Your task to perform on an android device: remove spam from my inbox in the gmail app Image 0: 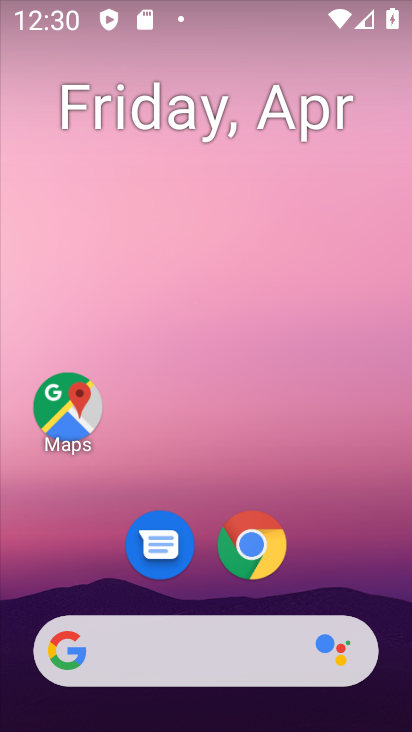
Step 0: drag from (346, 541) to (308, 148)
Your task to perform on an android device: remove spam from my inbox in the gmail app Image 1: 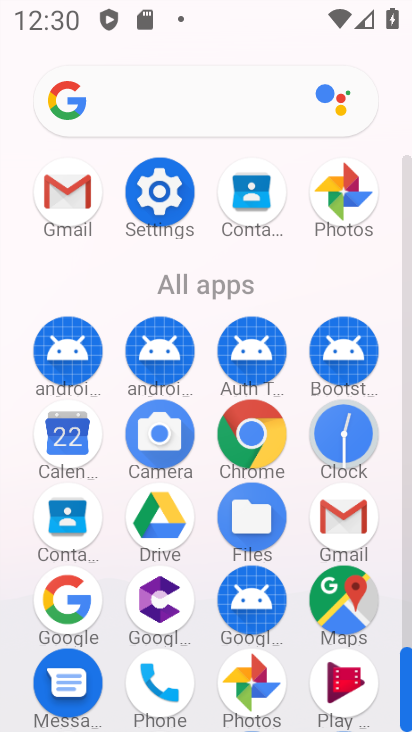
Step 1: click (346, 518)
Your task to perform on an android device: remove spam from my inbox in the gmail app Image 2: 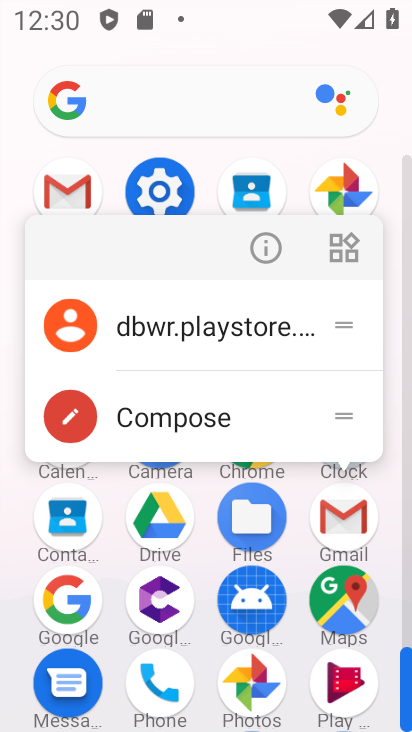
Step 2: click (345, 510)
Your task to perform on an android device: remove spam from my inbox in the gmail app Image 3: 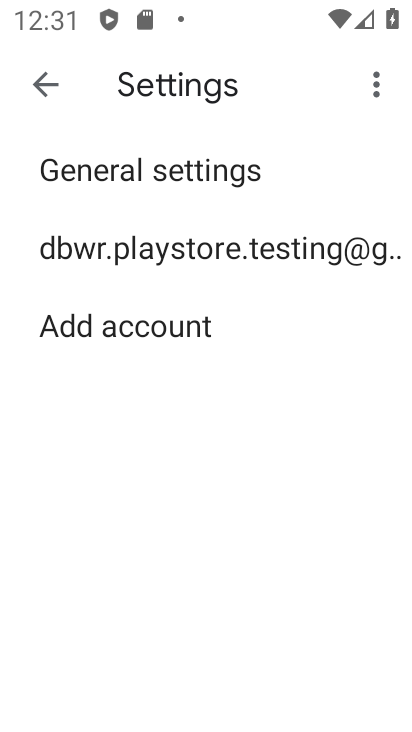
Step 3: click (51, 96)
Your task to perform on an android device: remove spam from my inbox in the gmail app Image 4: 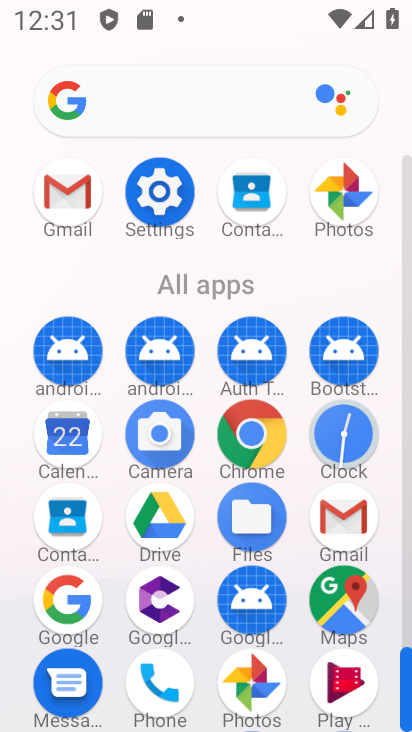
Step 4: click (70, 199)
Your task to perform on an android device: remove spam from my inbox in the gmail app Image 5: 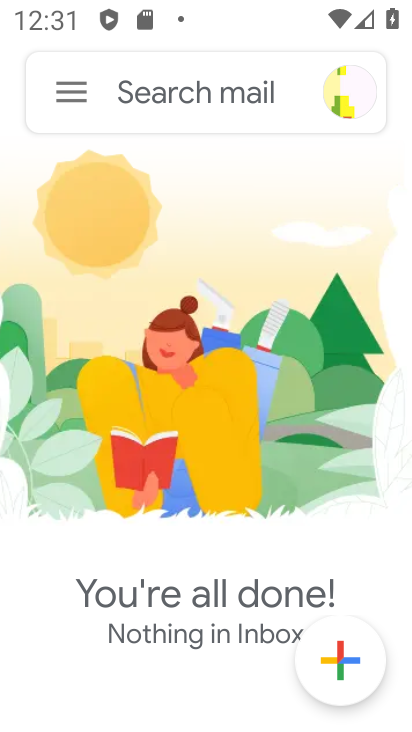
Step 5: click (68, 85)
Your task to perform on an android device: remove spam from my inbox in the gmail app Image 6: 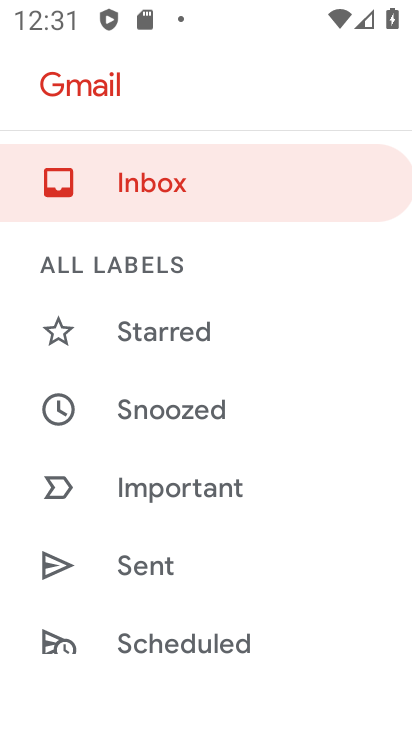
Step 6: drag from (228, 481) to (237, 245)
Your task to perform on an android device: remove spam from my inbox in the gmail app Image 7: 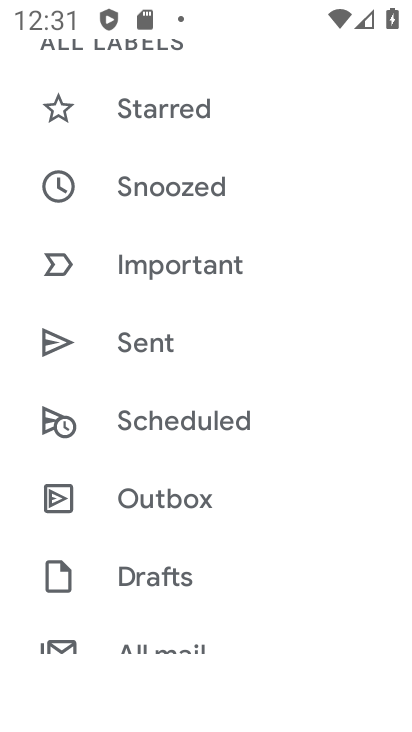
Step 7: drag from (246, 555) to (256, 196)
Your task to perform on an android device: remove spam from my inbox in the gmail app Image 8: 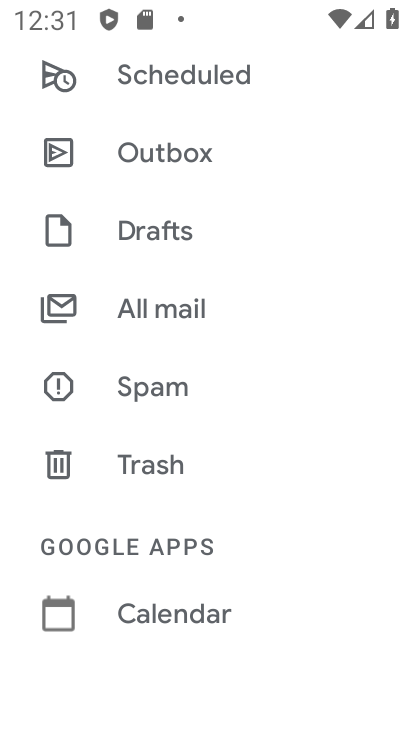
Step 8: click (159, 392)
Your task to perform on an android device: remove spam from my inbox in the gmail app Image 9: 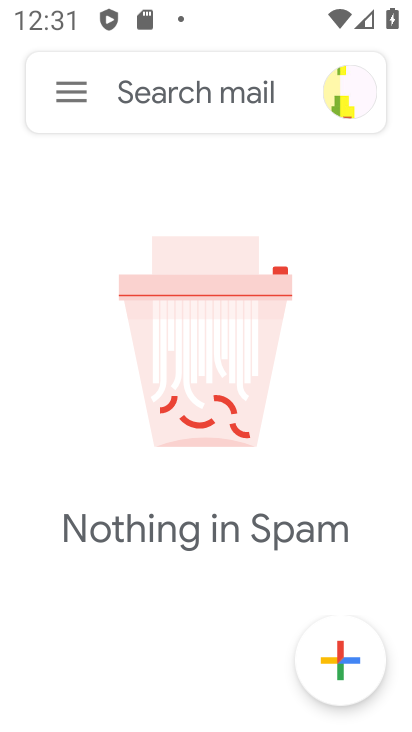
Step 9: task complete